Your task to perform on an android device: What's the latest video from GameTrailers? Image 0: 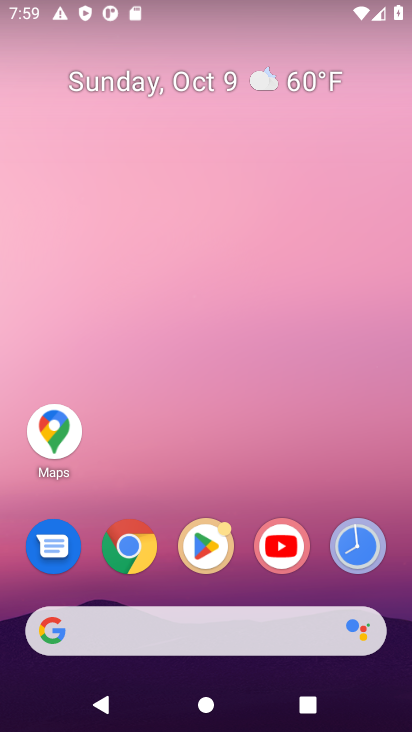
Step 0: click (124, 545)
Your task to perform on an android device: What's the latest video from GameTrailers? Image 1: 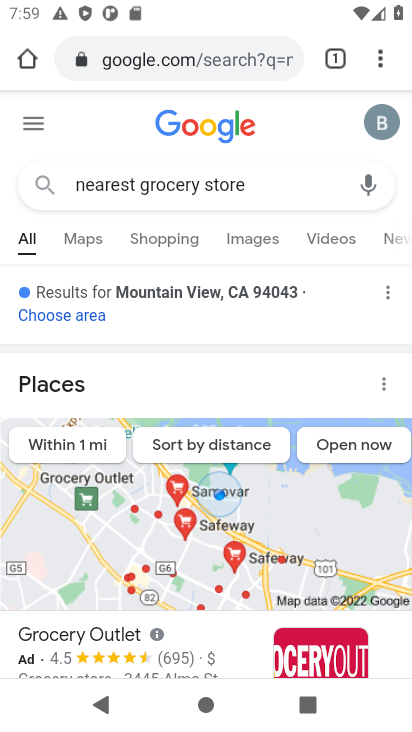
Step 1: click (296, 190)
Your task to perform on an android device: What's the latest video from GameTrailers? Image 2: 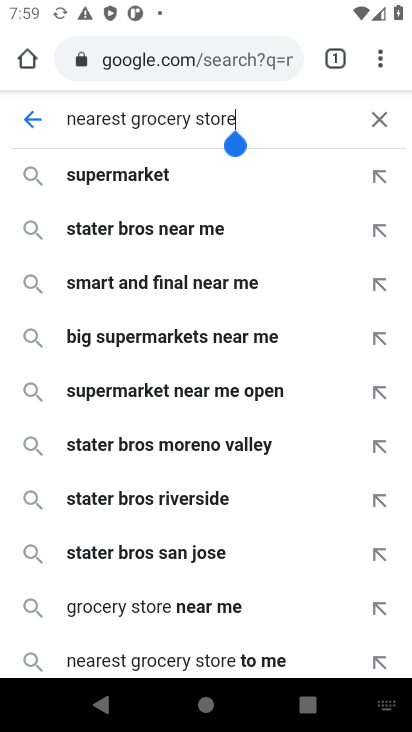
Step 2: click (379, 119)
Your task to perform on an android device: What's the latest video from GameTrailers? Image 3: 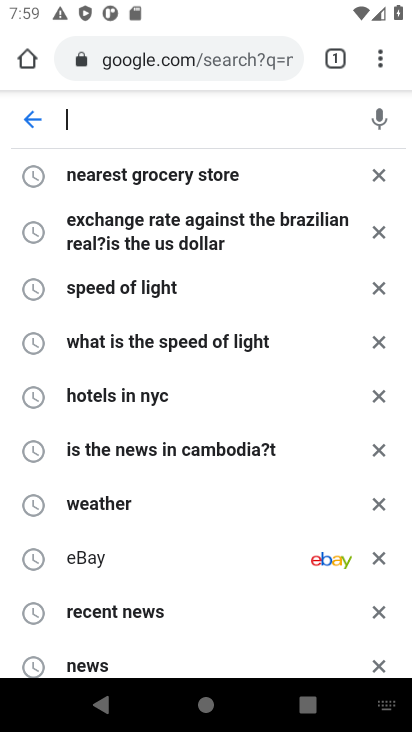
Step 3: type "game trailers"
Your task to perform on an android device: What's the latest video from GameTrailers? Image 4: 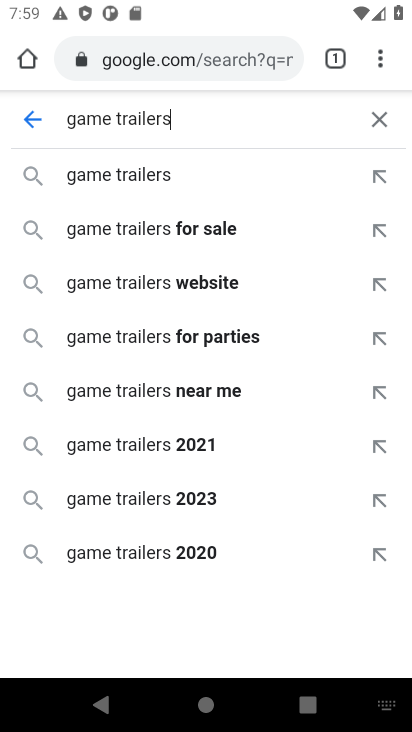
Step 4: type ""
Your task to perform on an android device: What's the latest video from GameTrailers? Image 5: 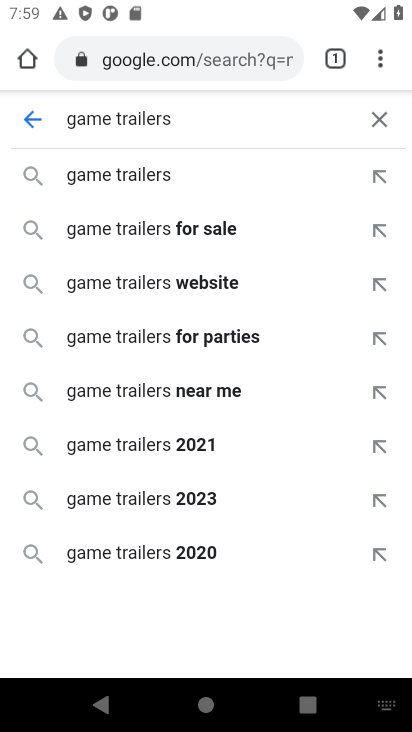
Step 5: press enter
Your task to perform on an android device: What's the latest video from GameTrailers? Image 6: 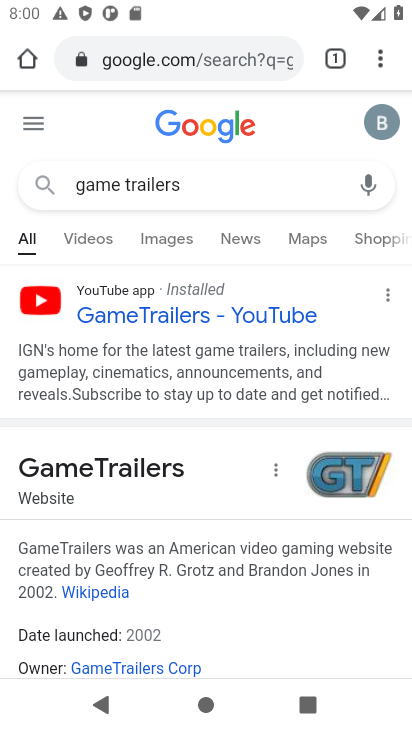
Step 6: click (149, 318)
Your task to perform on an android device: What's the latest video from GameTrailers? Image 7: 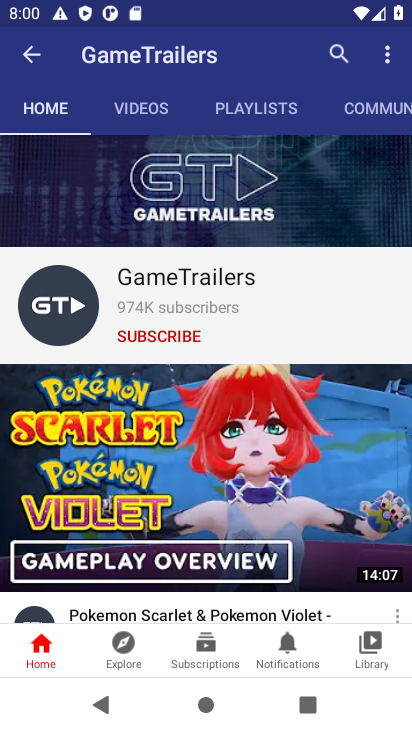
Step 7: drag from (212, 347) to (219, 204)
Your task to perform on an android device: What's the latest video from GameTrailers? Image 8: 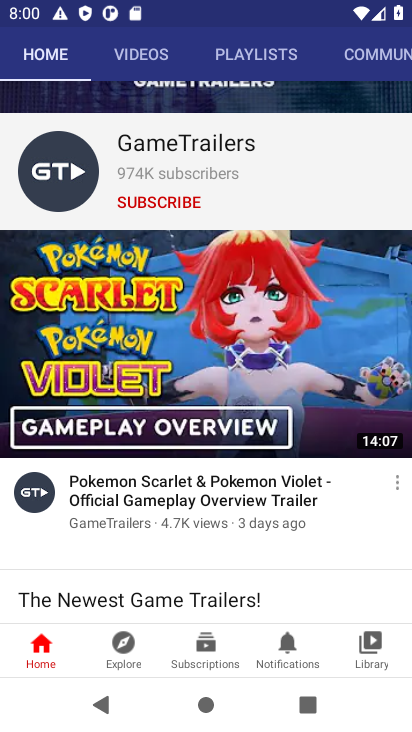
Step 8: drag from (275, 384) to (275, 267)
Your task to perform on an android device: What's the latest video from GameTrailers? Image 9: 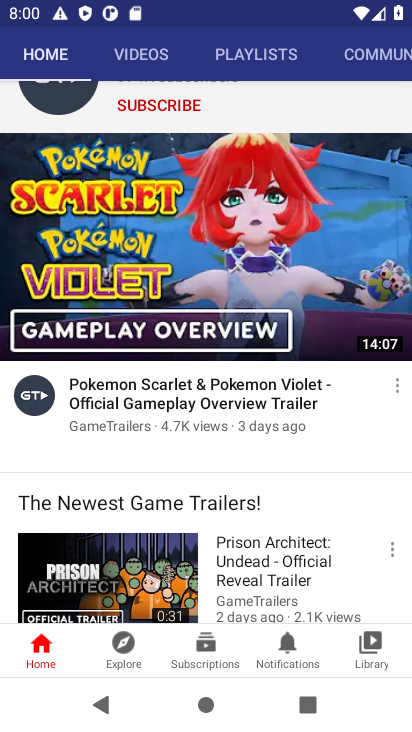
Step 9: click (149, 48)
Your task to perform on an android device: What's the latest video from GameTrailers? Image 10: 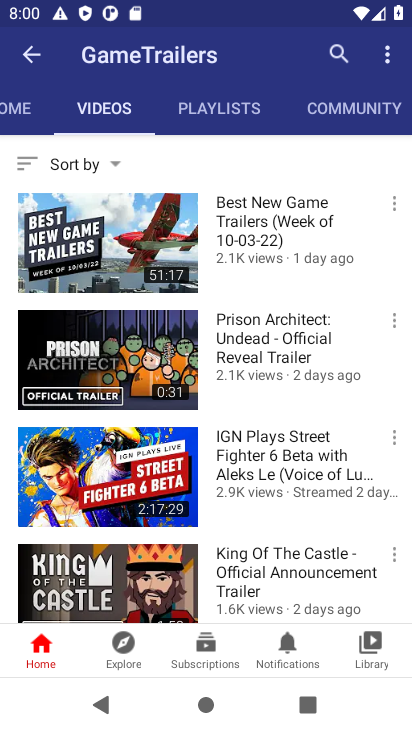
Step 10: drag from (169, 238) to (183, 313)
Your task to perform on an android device: What's the latest video from GameTrailers? Image 11: 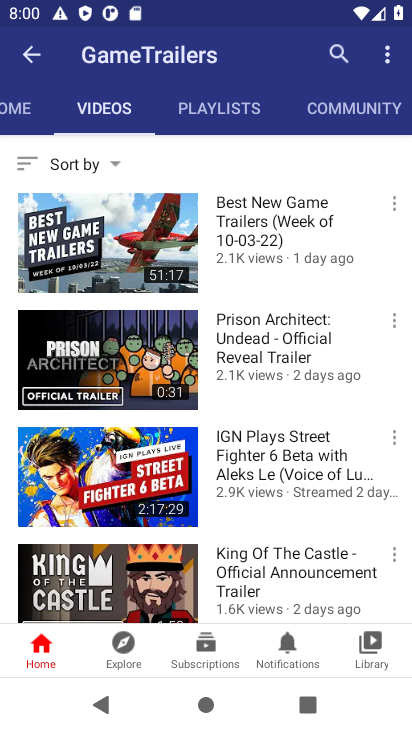
Step 11: click (128, 234)
Your task to perform on an android device: What's the latest video from GameTrailers? Image 12: 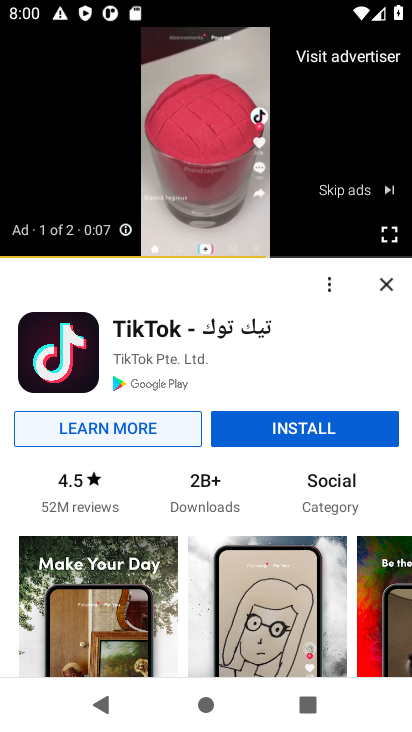
Step 12: click (322, 188)
Your task to perform on an android device: What's the latest video from GameTrailers? Image 13: 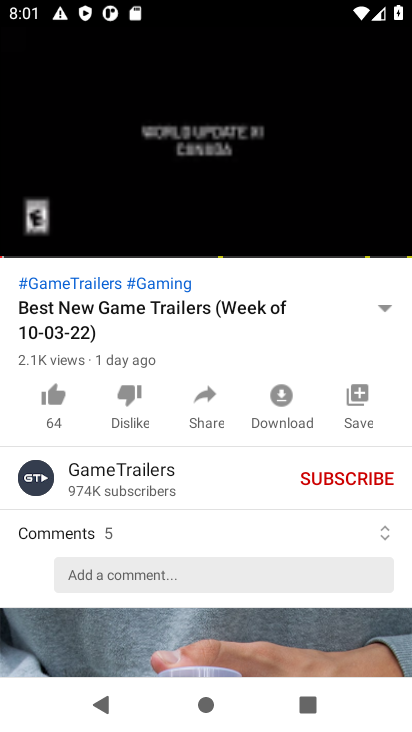
Step 13: task complete